Your task to perform on an android device: see tabs open on other devices in the chrome app Image 0: 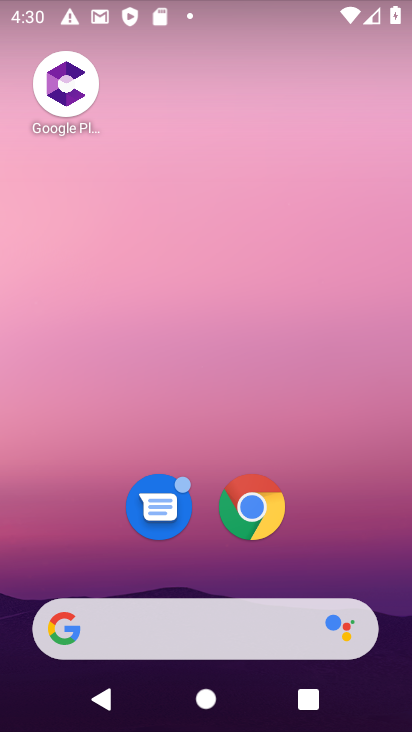
Step 0: click (240, 516)
Your task to perform on an android device: see tabs open on other devices in the chrome app Image 1: 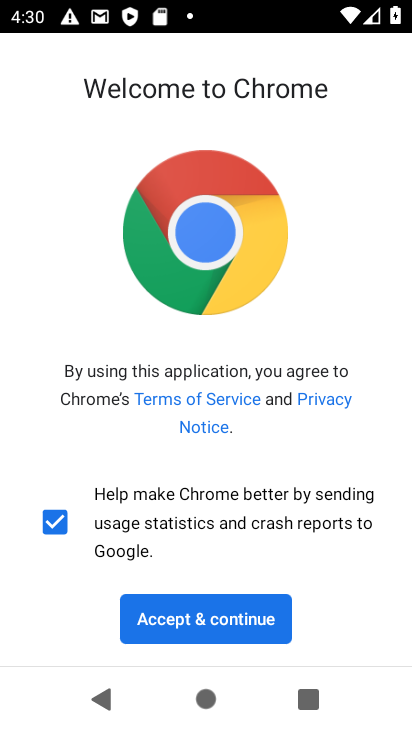
Step 1: click (243, 613)
Your task to perform on an android device: see tabs open on other devices in the chrome app Image 2: 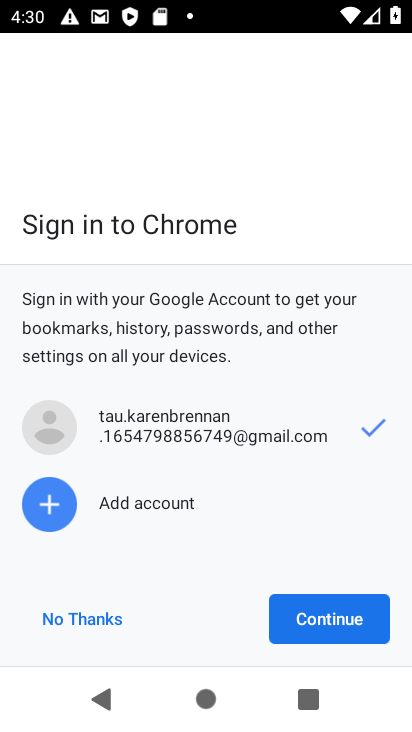
Step 2: drag from (243, 613) to (306, 613)
Your task to perform on an android device: see tabs open on other devices in the chrome app Image 3: 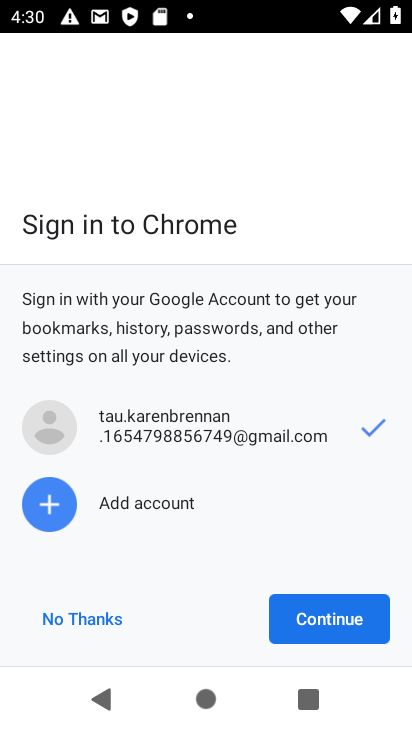
Step 3: click (311, 624)
Your task to perform on an android device: see tabs open on other devices in the chrome app Image 4: 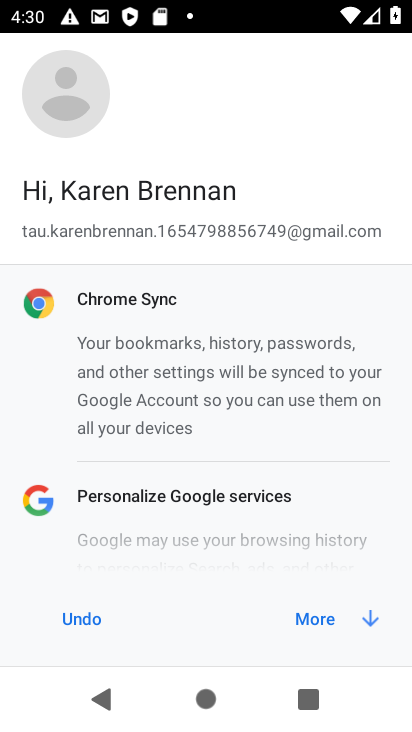
Step 4: click (311, 621)
Your task to perform on an android device: see tabs open on other devices in the chrome app Image 5: 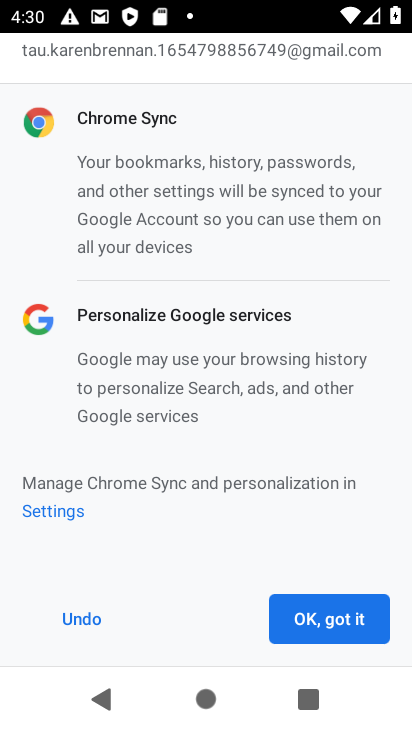
Step 5: click (311, 621)
Your task to perform on an android device: see tabs open on other devices in the chrome app Image 6: 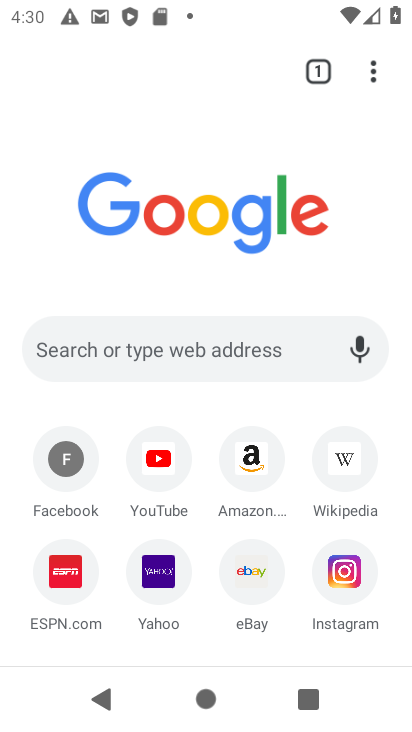
Step 6: click (336, 62)
Your task to perform on an android device: see tabs open on other devices in the chrome app Image 7: 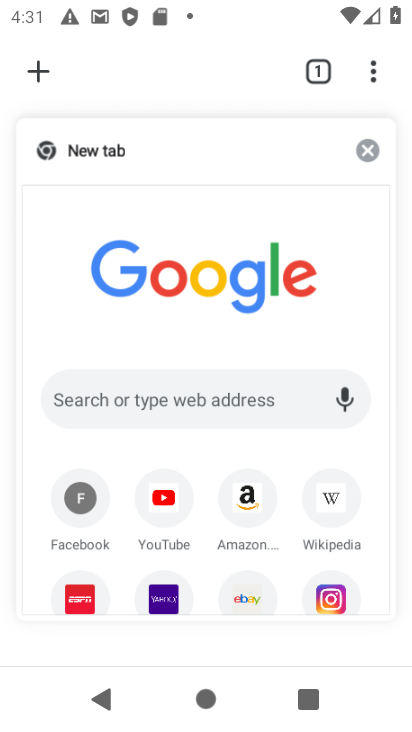
Step 7: task complete